Your task to perform on an android device: turn off notifications in google photos Image 0: 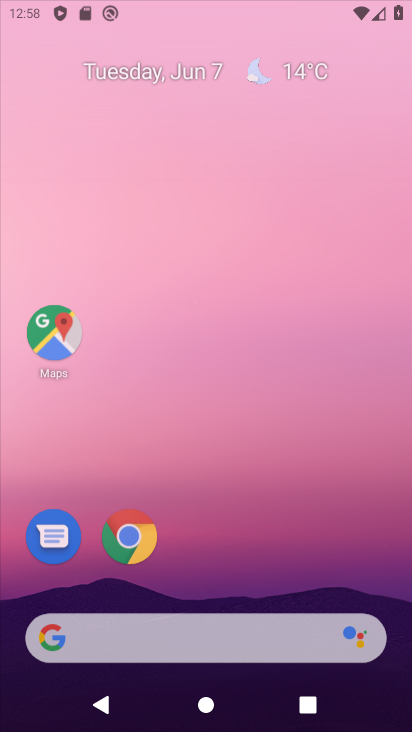
Step 0: click (225, 495)
Your task to perform on an android device: turn off notifications in google photos Image 1: 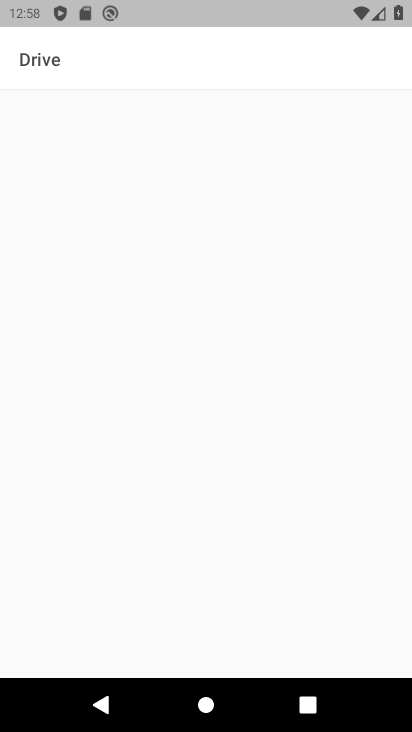
Step 1: press home button
Your task to perform on an android device: turn off notifications in google photos Image 2: 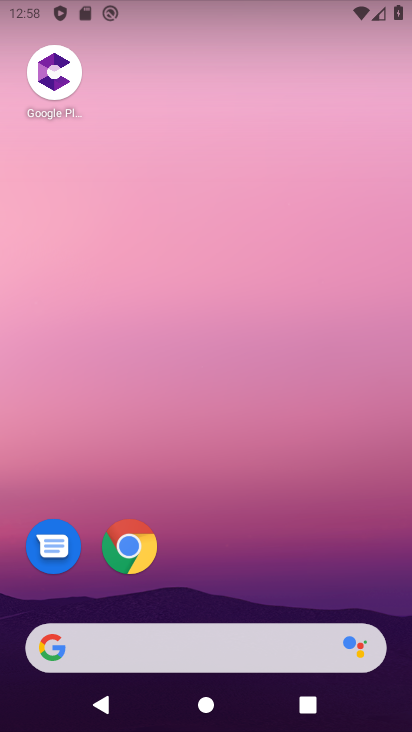
Step 2: drag from (245, 595) to (255, 16)
Your task to perform on an android device: turn off notifications in google photos Image 3: 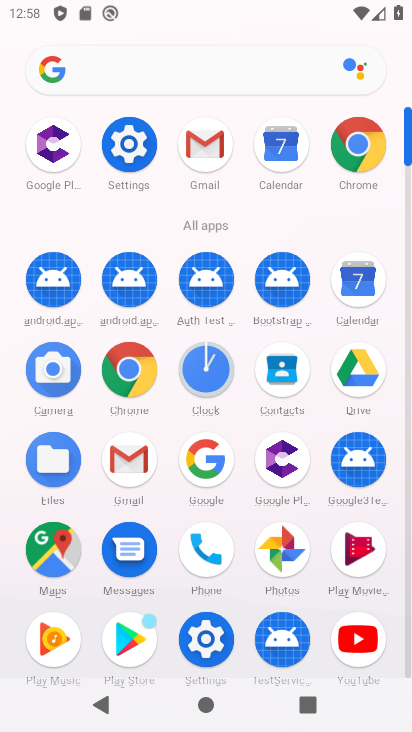
Step 3: click (293, 548)
Your task to perform on an android device: turn off notifications in google photos Image 4: 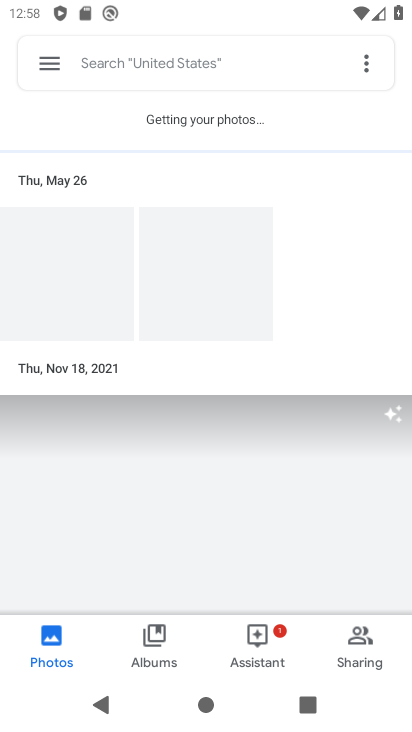
Step 4: click (45, 54)
Your task to perform on an android device: turn off notifications in google photos Image 5: 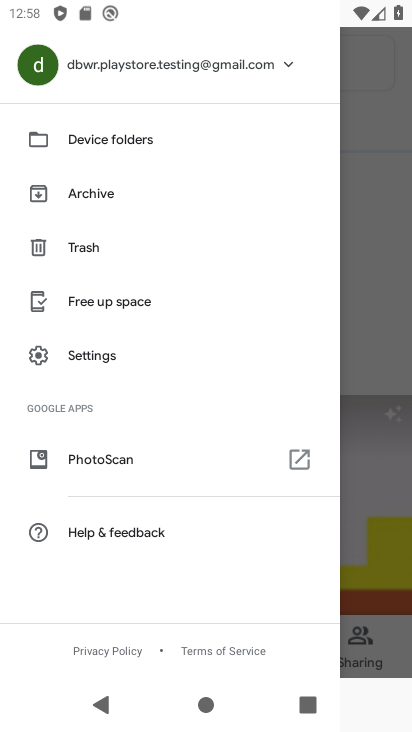
Step 5: click (71, 358)
Your task to perform on an android device: turn off notifications in google photos Image 6: 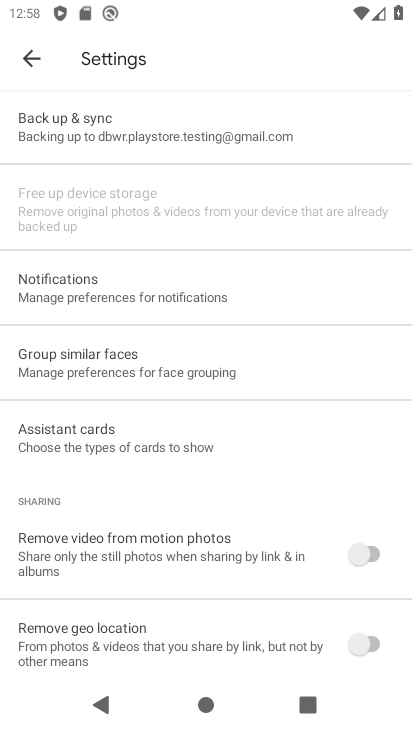
Step 6: click (101, 300)
Your task to perform on an android device: turn off notifications in google photos Image 7: 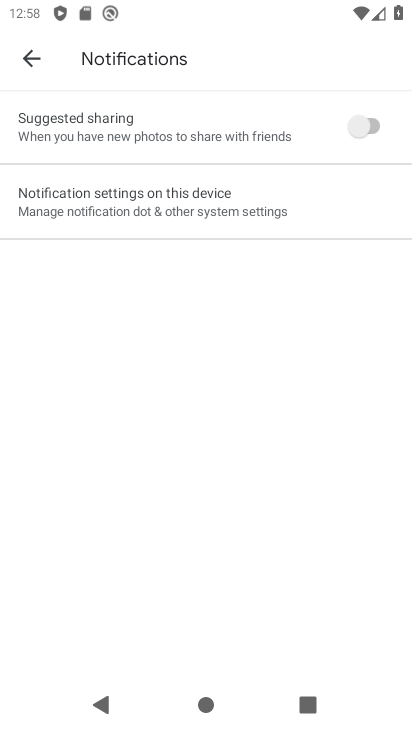
Step 7: click (302, 209)
Your task to perform on an android device: turn off notifications in google photos Image 8: 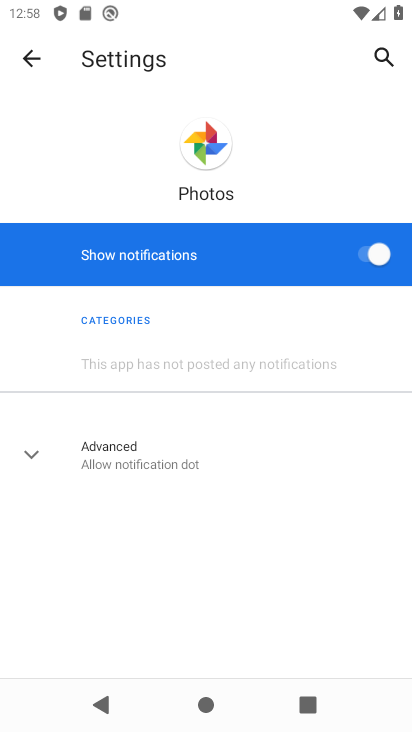
Step 8: click (365, 253)
Your task to perform on an android device: turn off notifications in google photos Image 9: 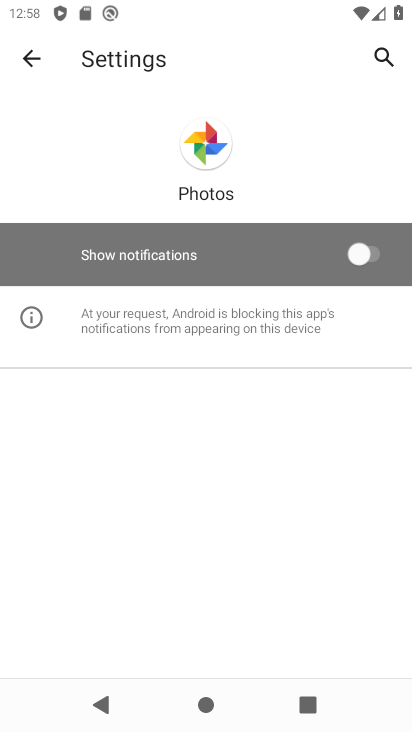
Step 9: task complete